Your task to perform on an android device: remove spam from my inbox in the gmail app Image 0: 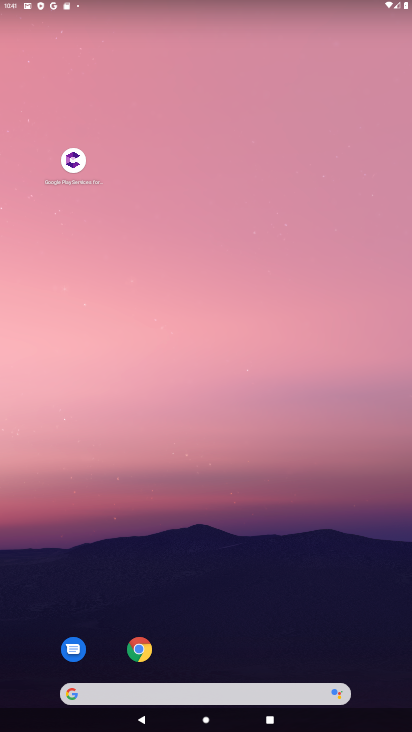
Step 0: drag from (96, 688) to (120, 143)
Your task to perform on an android device: remove spam from my inbox in the gmail app Image 1: 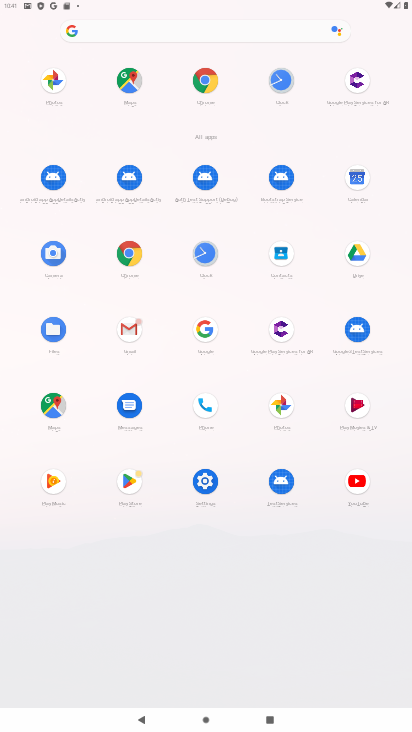
Step 1: click (126, 322)
Your task to perform on an android device: remove spam from my inbox in the gmail app Image 2: 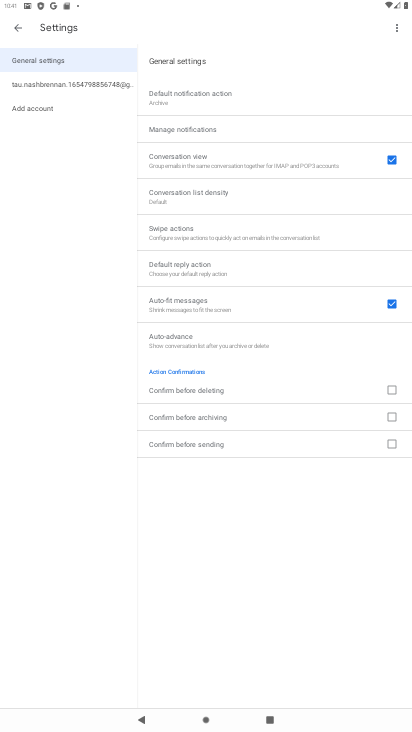
Step 2: press back button
Your task to perform on an android device: remove spam from my inbox in the gmail app Image 3: 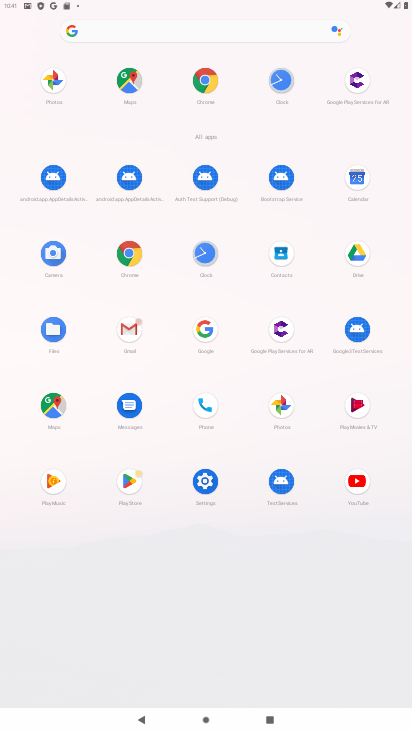
Step 3: click (134, 328)
Your task to perform on an android device: remove spam from my inbox in the gmail app Image 4: 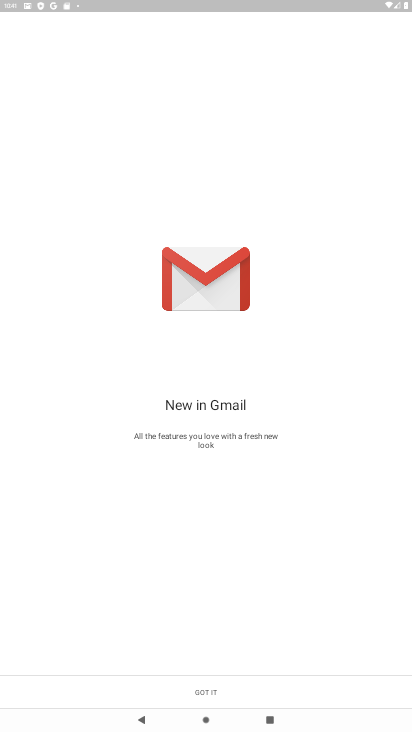
Step 4: click (275, 700)
Your task to perform on an android device: remove spam from my inbox in the gmail app Image 5: 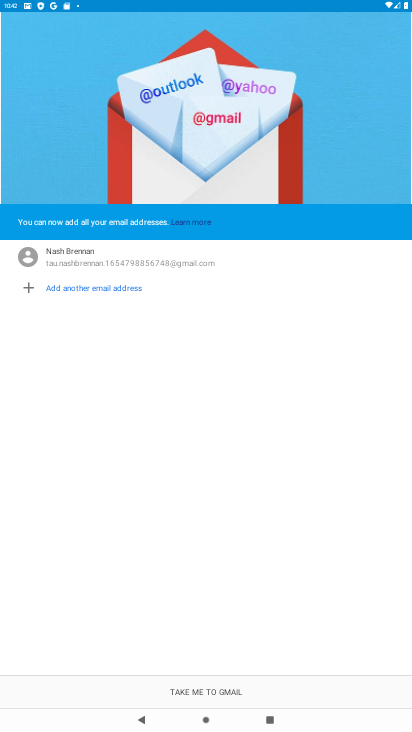
Step 5: click (275, 700)
Your task to perform on an android device: remove spam from my inbox in the gmail app Image 6: 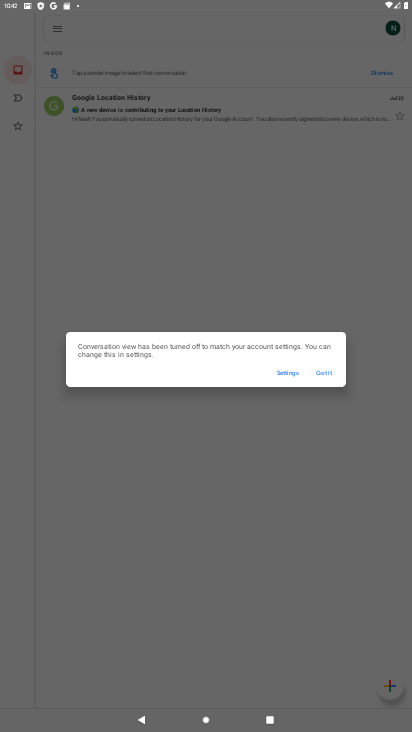
Step 6: click (329, 370)
Your task to perform on an android device: remove spam from my inbox in the gmail app Image 7: 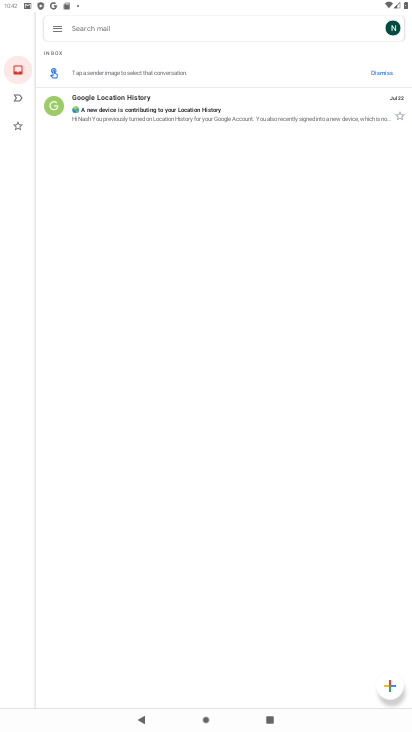
Step 7: click (57, 24)
Your task to perform on an android device: remove spam from my inbox in the gmail app Image 8: 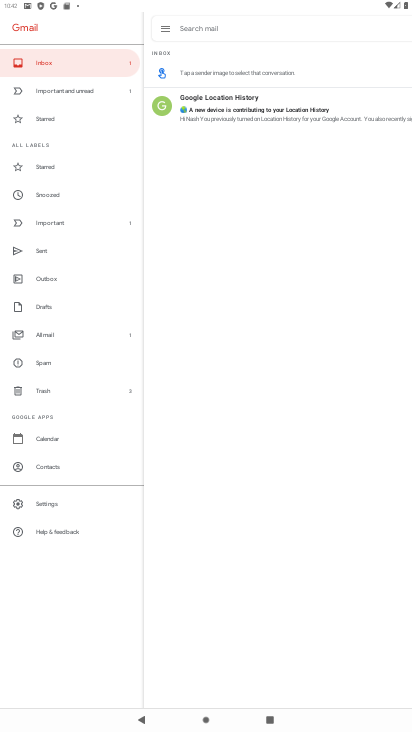
Step 8: click (42, 356)
Your task to perform on an android device: remove spam from my inbox in the gmail app Image 9: 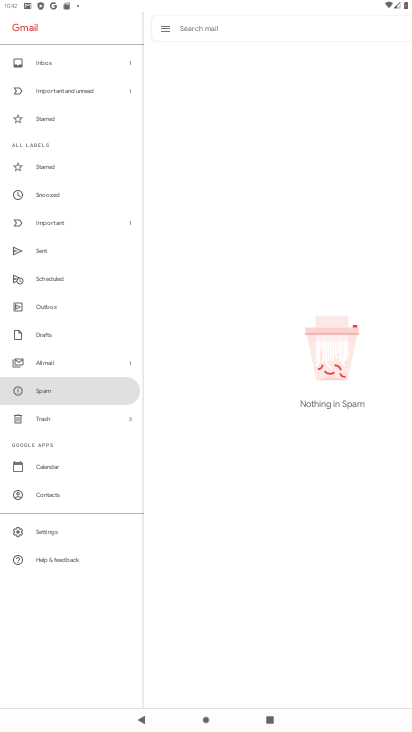
Step 9: task complete